Your task to perform on an android device: toggle data saver in the chrome app Image 0: 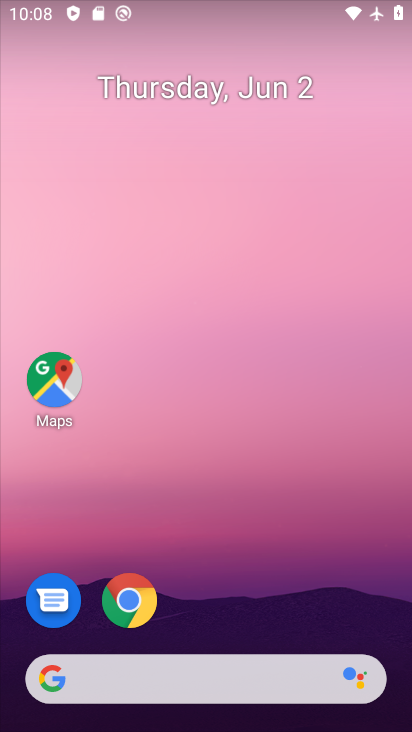
Step 0: press home button
Your task to perform on an android device: toggle data saver in the chrome app Image 1: 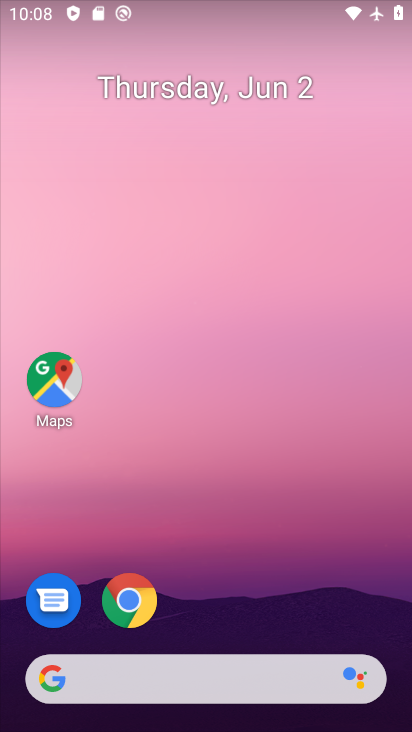
Step 1: click (129, 603)
Your task to perform on an android device: toggle data saver in the chrome app Image 2: 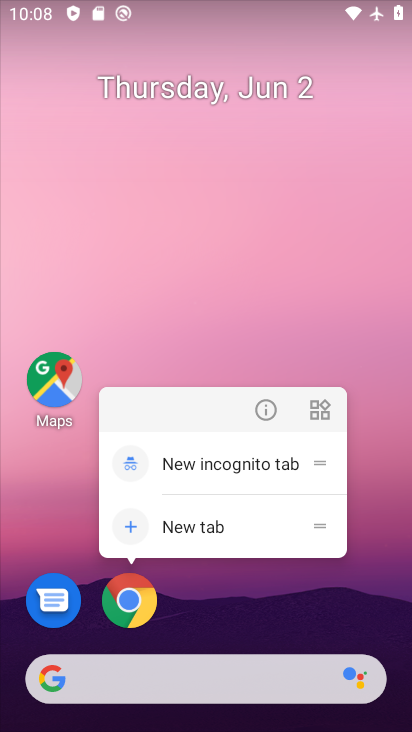
Step 2: click (145, 601)
Your task to perform on an android device: toggle data saver in the chrome app Image 3: 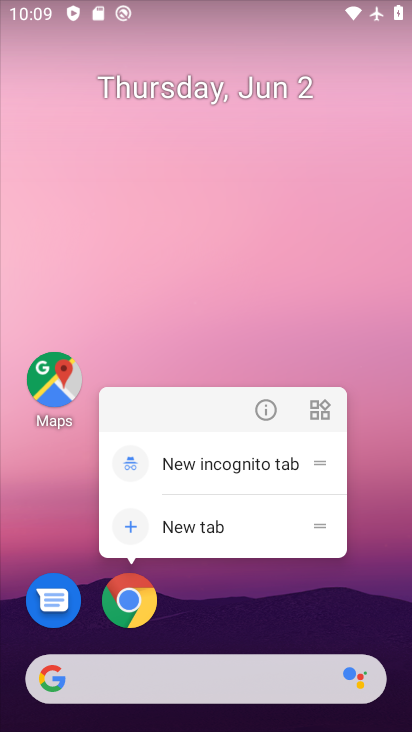
Step 3: click (129, 607)
Your task to perform on an android device: toggle data saver in the chrome app Image 4: 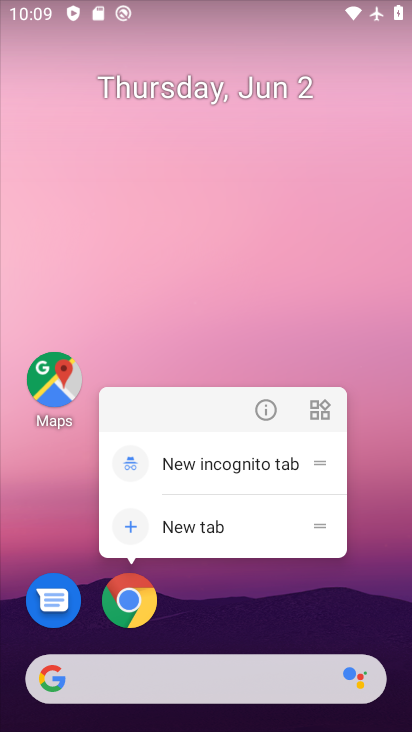
Step 4: click (130, 601)
Your task to perform on an android device: toggle data saver in the chrome app Image 5: 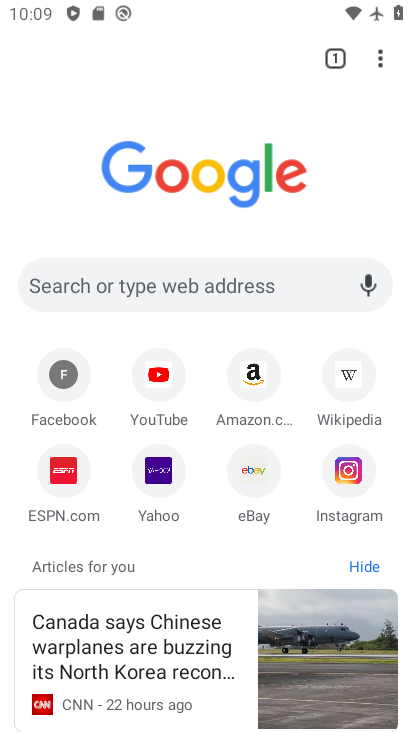
Step 5: drag from (379, 63) to (231, 493)
Your task to perform on an android device: toggle data saver in the chrome app Image 6: 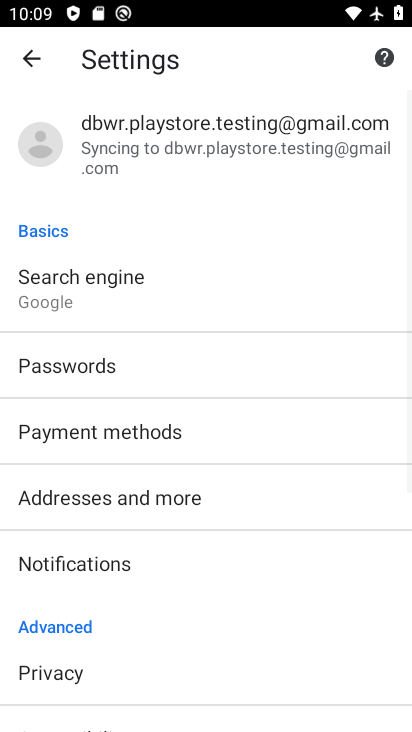
Step 6: drag from (134, 659) to (285, 199)
Your task to perform on an android device: toggle data saver in the chrome app Image 7: 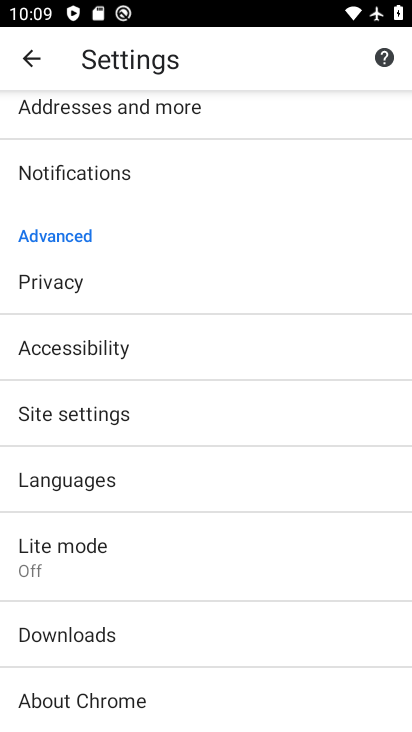
Step 7: click (76, 547)
Your task to perform on an android device: toggle data saver in the chrome app Image 8: 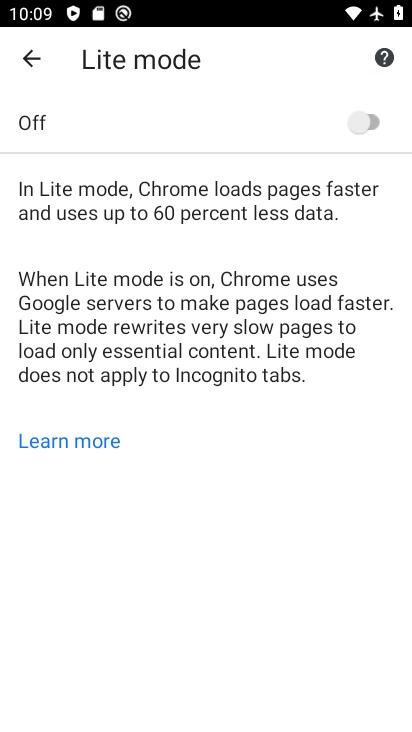
Step 8: click (372, 118)
Your task to perform on an android device: toggle data saver in the chrome app Image 9: 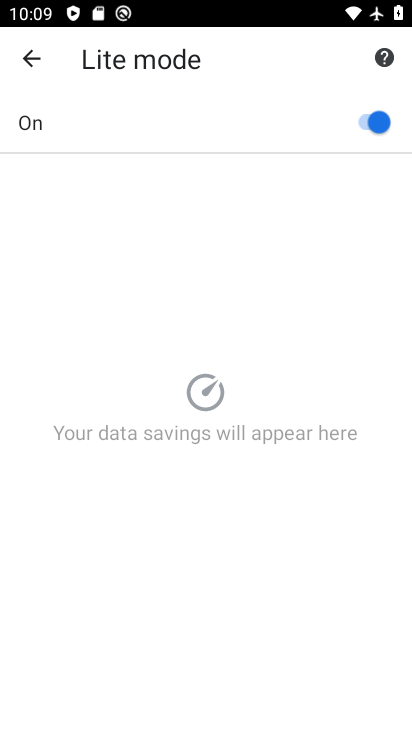
Step 9: task complete